Your task to perform on an android device: What is the recent news? Image 0: 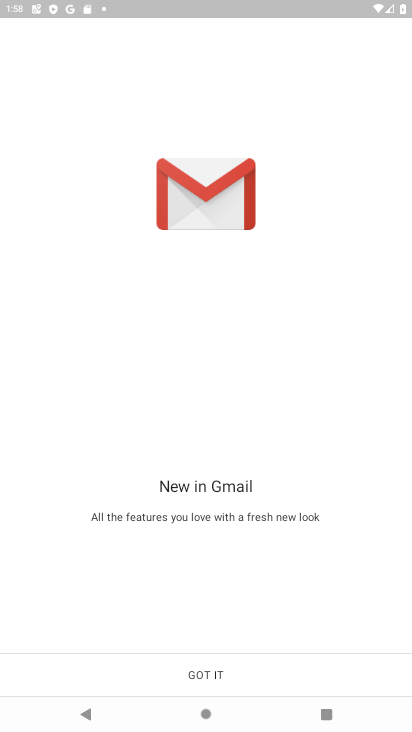
Step 0: press home button
Your task to perform on an android device: What is the recent news? Image 1: 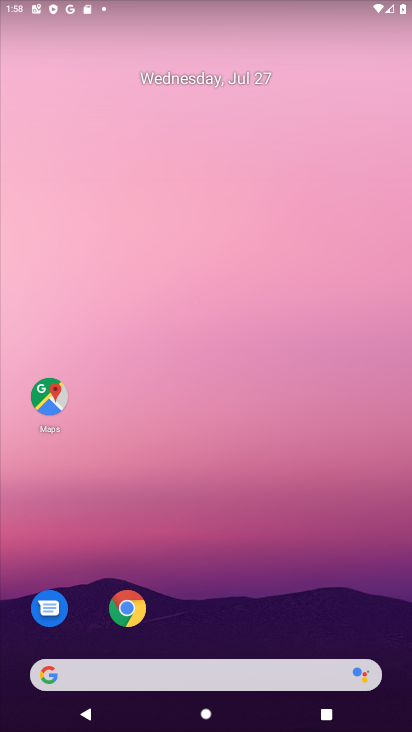
Step 1: click (95, 679)
Your task to perform on an android device: What is the recent news? Image 2: 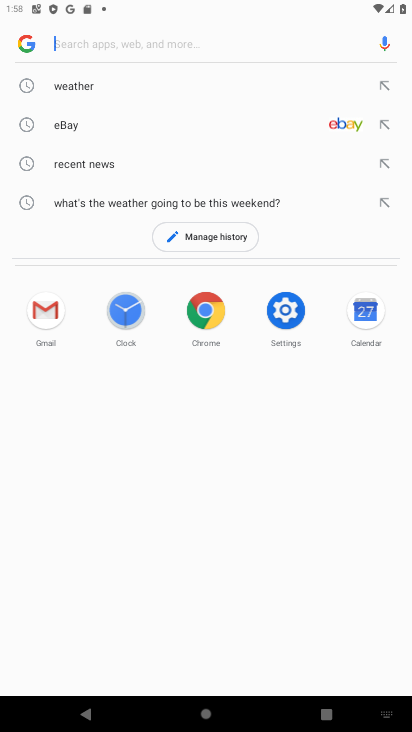
Step 2: type "What is the recent news?"
Your task to perform on an android device: What is the recent news? Image 3: 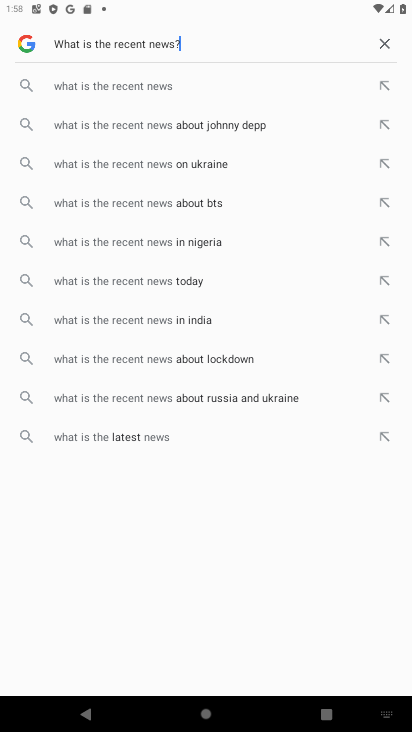
Step 3: type ""
Your task to perform on an android device: What is the recent news? Image 4: 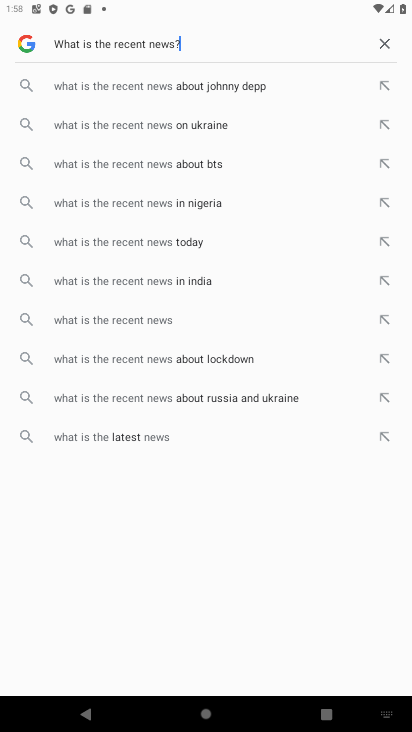
Step 4: type ""
Your task to perform on an android device: What is the recent news? Image 5: 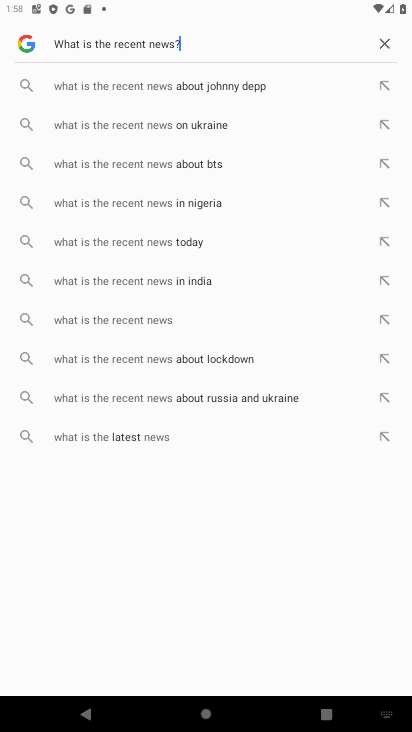
Step 5: type ""
Your task to perform on an android device: What is the recent news? Image 6: 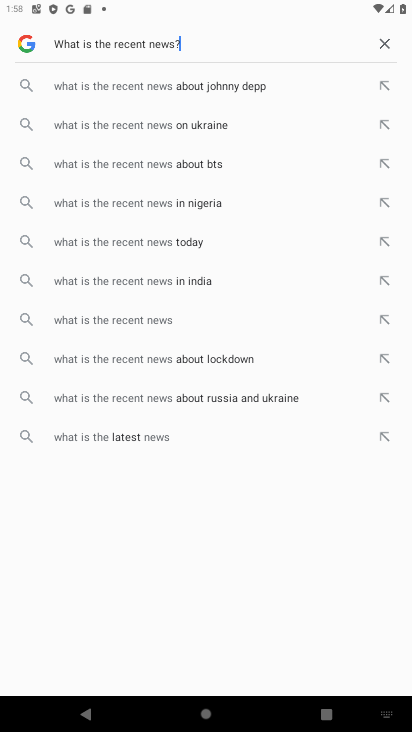
Step 6: task complete